Your task to perform on an android device: turn off translation in the chrome app Image 0: 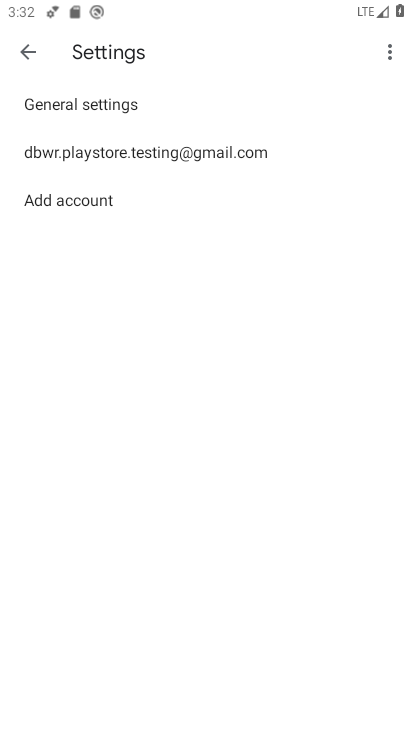
Step 0: press home button
Your task to perform on an android device: turn off translation in the chrome app Image 1: 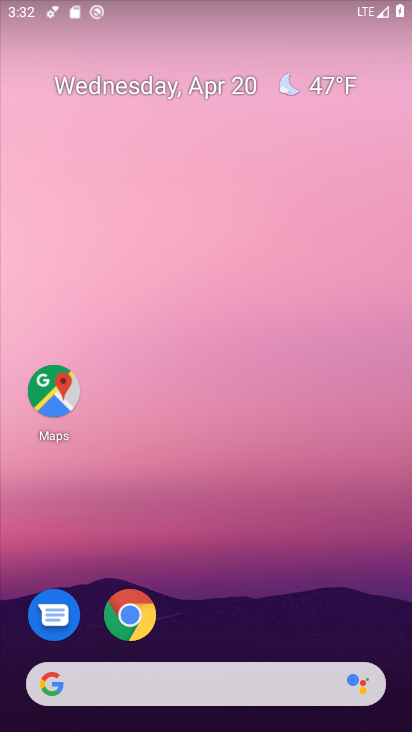
Step 1: click (124, 608)
Your task to perform on an android device: turn off translation in the chrome app Image 2: 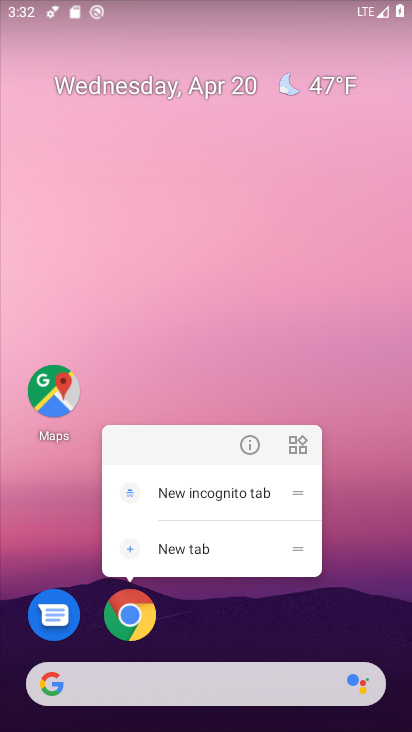
Step 2: click (114, 615)
Your task to perform on an android device: turn off translation in the chrome app Image 3: 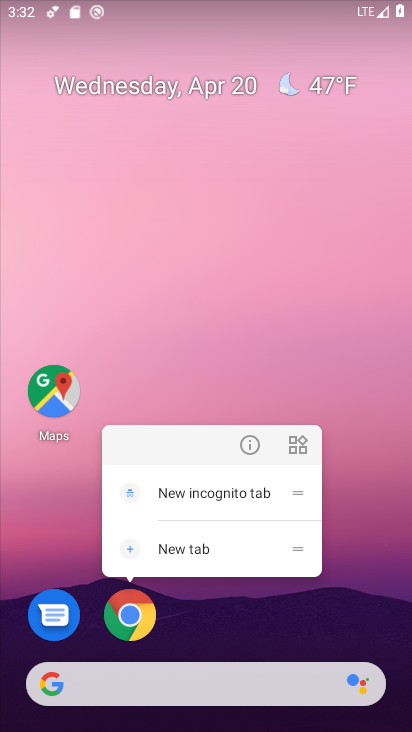
Step 3: click (136, 601)
Your task to perform on an android device: turn off translation in the chrome app Image 4: 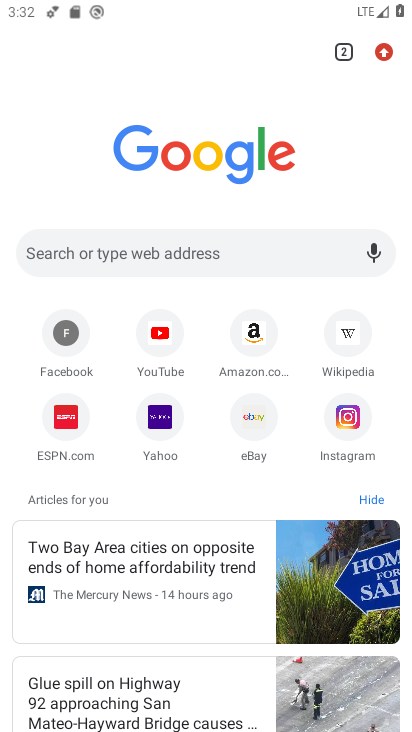
Step 4: click (388, 48)
Your task to perform on an android device: turn off translation in the chrome app Image 5: 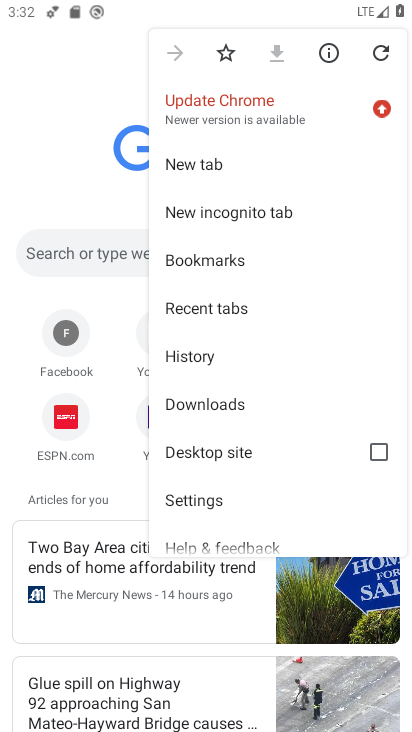
Step 5: click (242, 497)
Your task to perform on an android device: turn off translation in the chrome app Image 6: 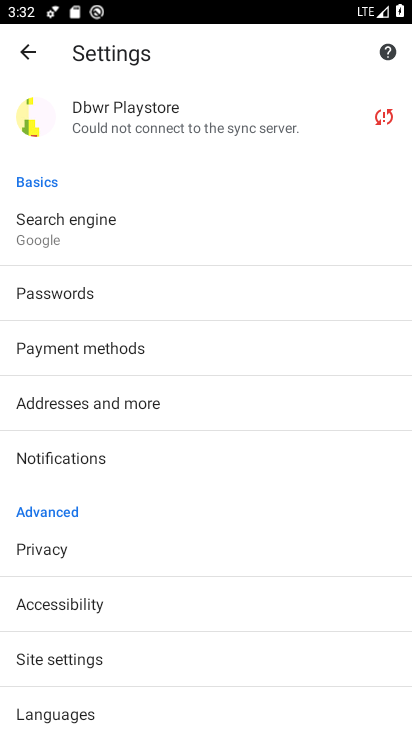
Step 6: click (104, 701)
Your task to perform on an android device: turn off translation in the chrome app Image 7: 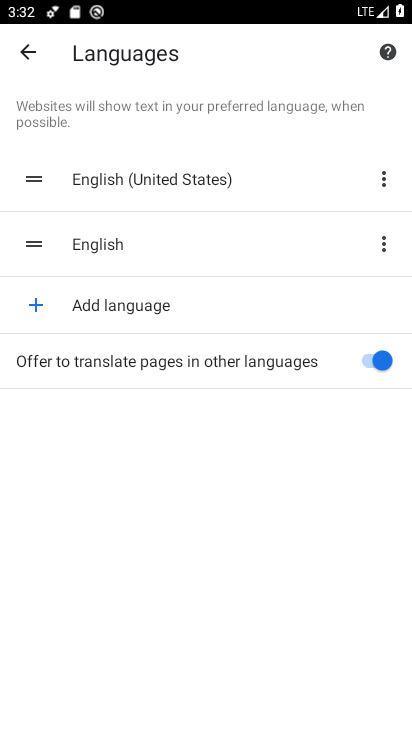
Step 7: click (365, 359)
Your task to perform on an android device: turn off translation in the chrome app Image 8: 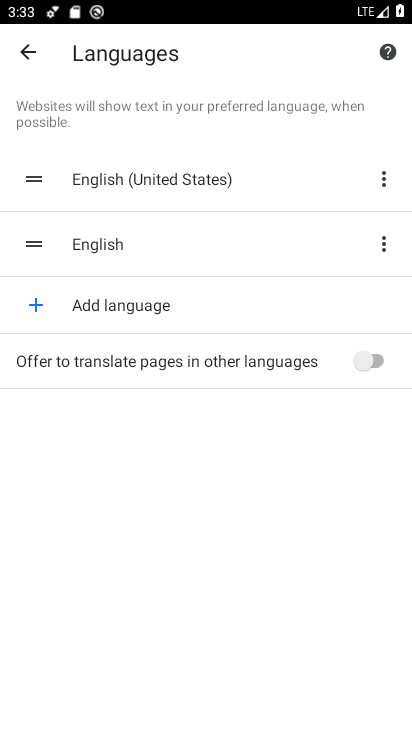
Step 8: task complete